Your task to perform on an android device: Toggle the flashlight Image 0: 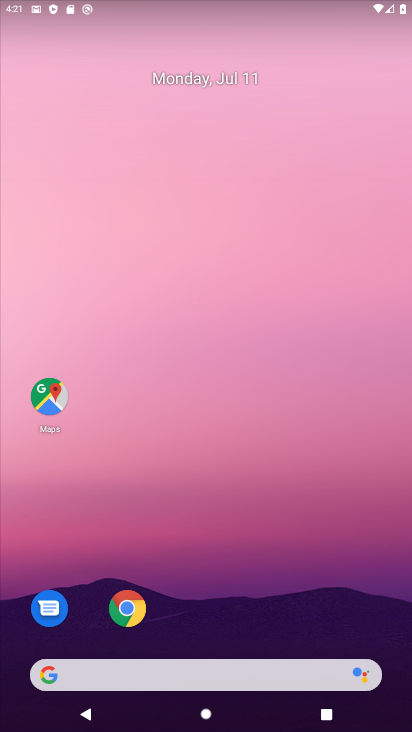
Step 0: click (402, 586)
Your task to perform on an android device: Toggle the flashlight Image 1: 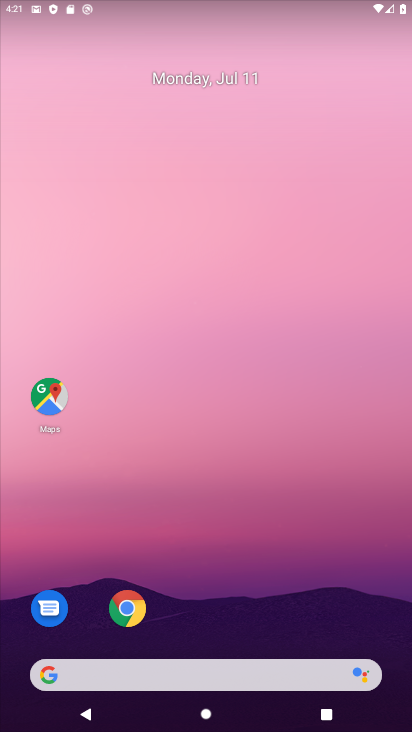
Step 1: task complete